Your task to perform on an android device: delete location history Image 0: 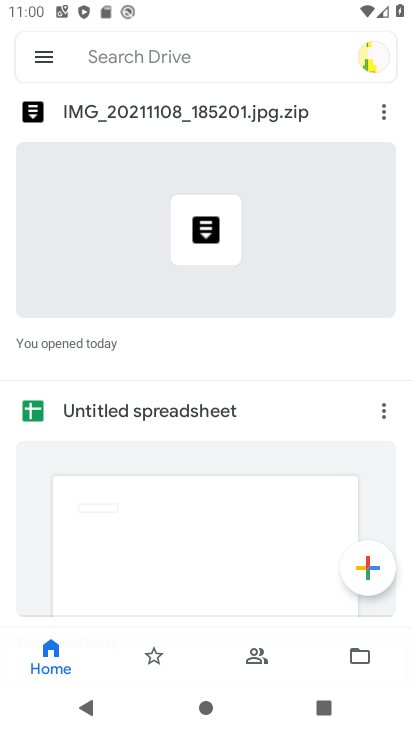
Step 0: press back button
Your task to perform on an android device: delete location history Image 1: 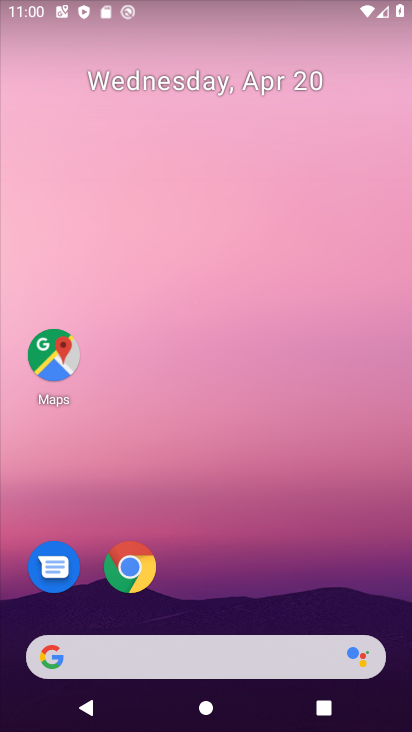
Step 1: drag from (314, 524) to (267, 20)
Your task to perform on an android device: delete location history Image 2: 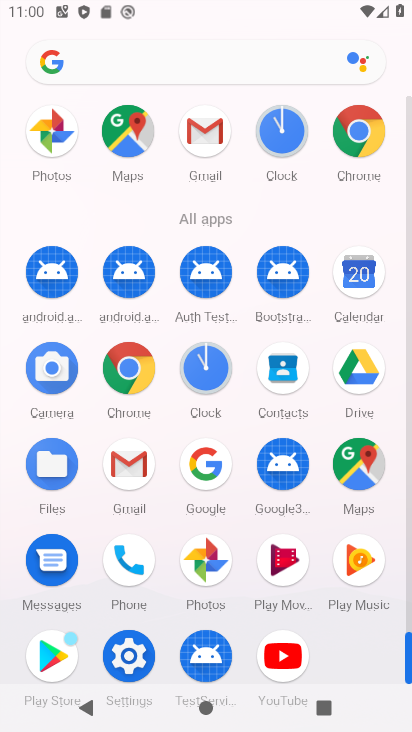
Step 2: click (130, 653)
Your task to perform on an android device: delete location history Image 3: 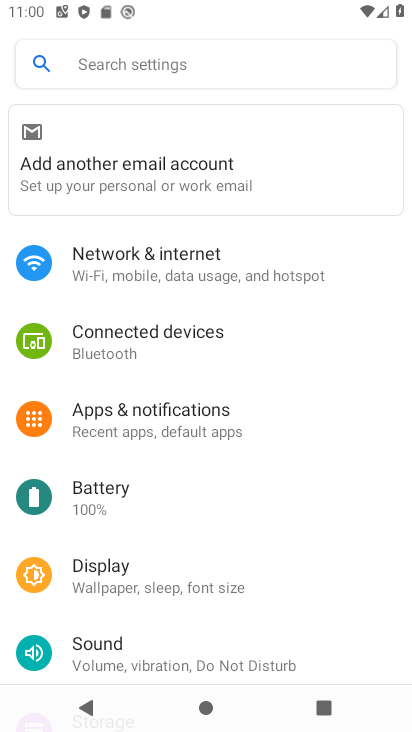
Step 3: drag from (260, 532) to (275, 111)
Your task to perform on an android device: delete location history Image 4: 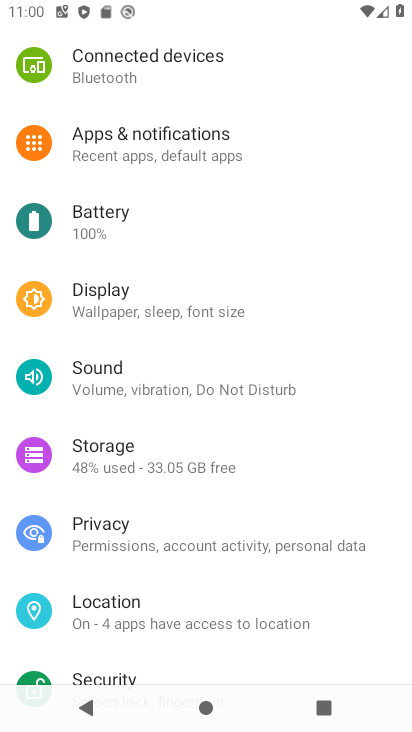
Step 4: click (127, 615)
Your task to perform on an android device: delete location history Image 5: 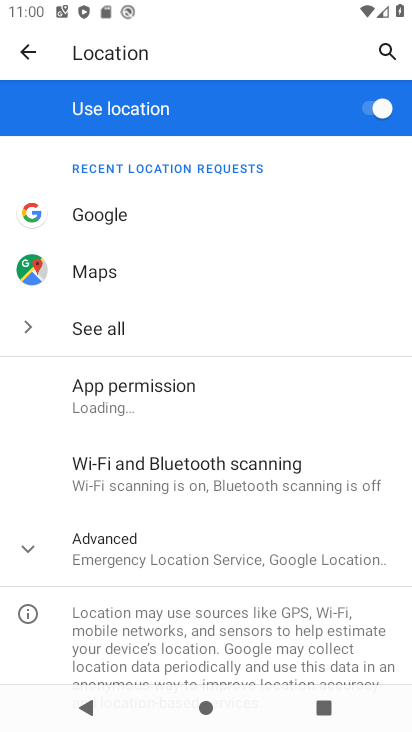
Step 5: drag from (175, 495) to (189, 188)
Your task to perform on an android device: delete location history Image 6: 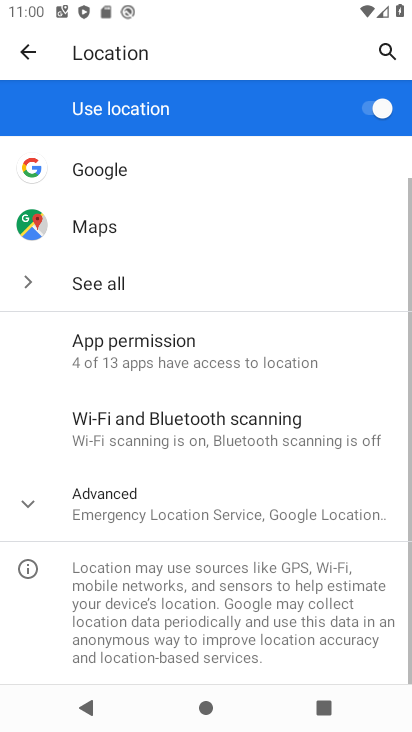
Step 6: click (105, 511)
Your task to perform on an android device: delete location history Image 7: 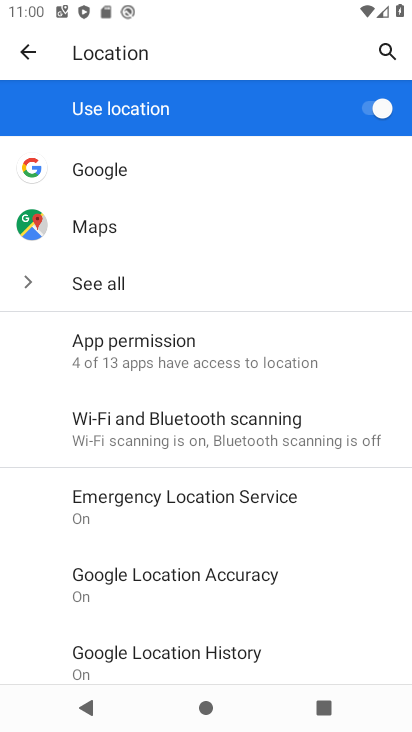
Step 7: click (223, 631)
Your task to perform on an android device: delete location history Image 8: 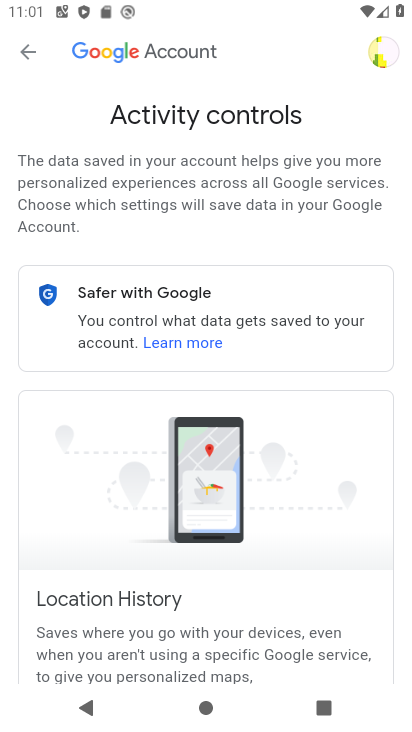
Step 8: drag from (262, 490) to (258, 119)
Your task to perform on an android device: delete location history Image 9: 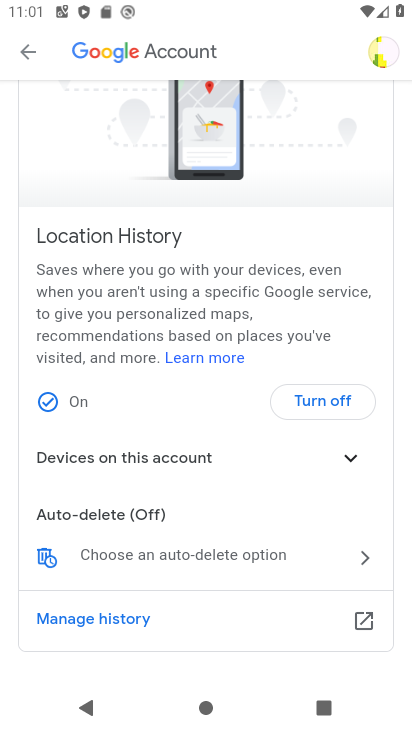
Step 9: click (50, 549)
Your task to perform on an android device: delete location history Image 10: 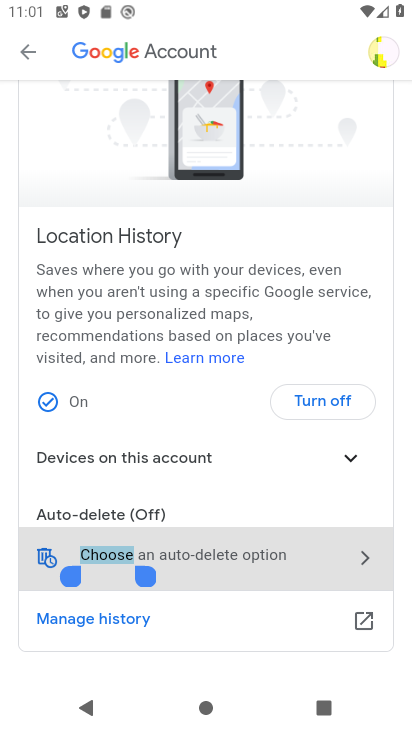
Step 10: click (40, 559)
Your task to perform on an android device: delete location history Image 11: 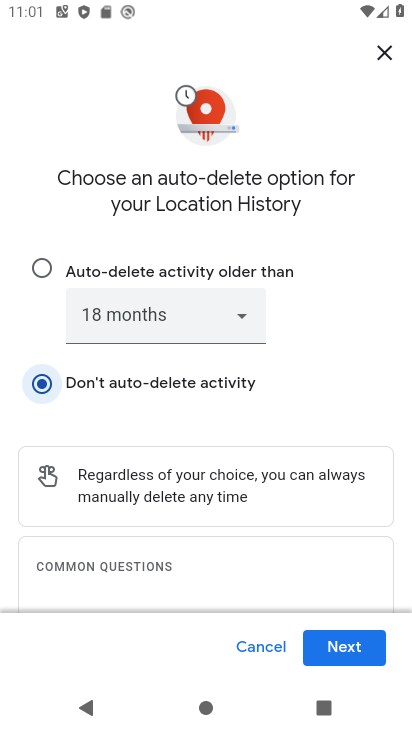
Step 11: click (329, 646)
Your task to perform on an android device: delete location history Image 12: 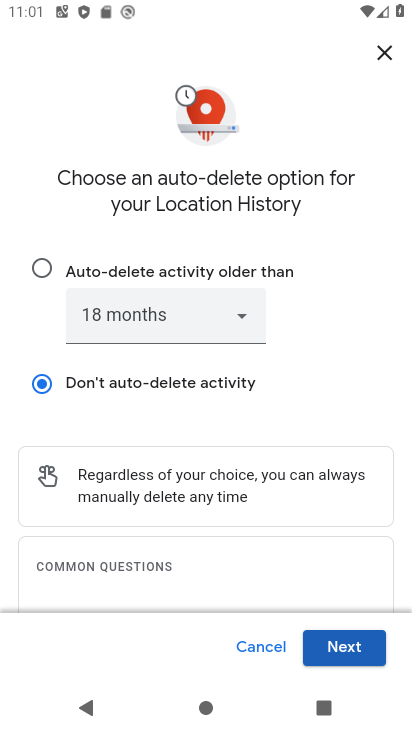
Step 12: click (329, 646)
Your task to perform on an android device: delete location history Image 13: 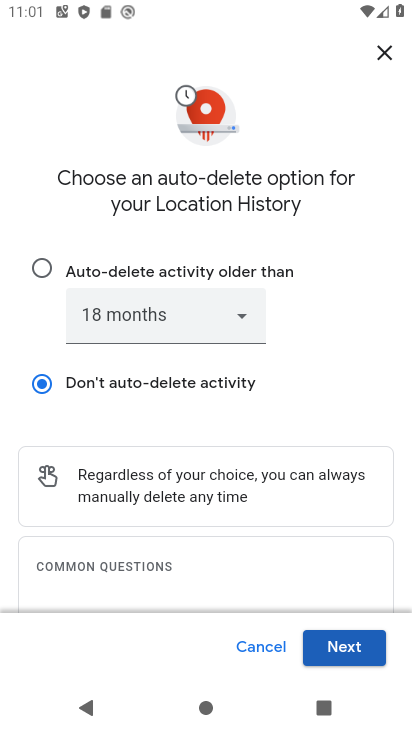
Step 13: click (329, 646)
Your task to perform on an android device: delete location history Image 14: 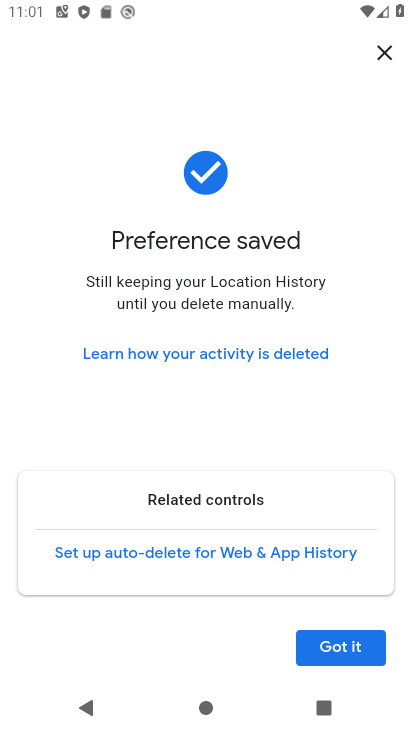
Step 14: task complete